Your task to perform on an android device: Open Chrome and go to the settings page Image 0: 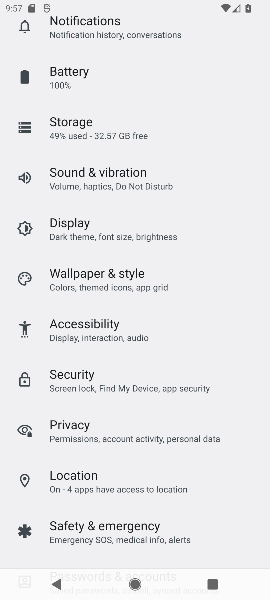
Step 0: press home button
Your task to perform on an android device: Open Chrome and go to the settings page Image 1: 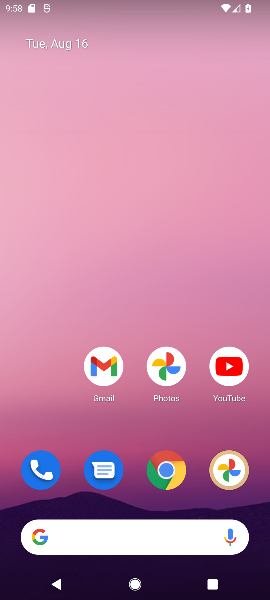
Step 1: click (168, 472)
Your task to perform on an android device: Open Chrome and go to the settings page Image 2: 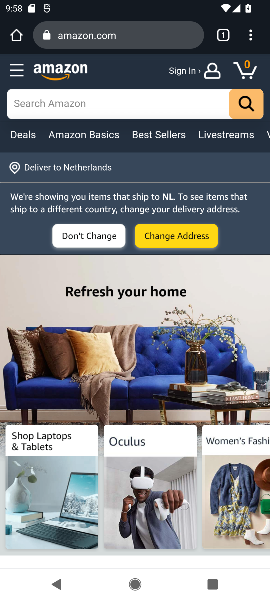
Step 2: press back button
Your task to perform on an android device: Open Chrome and go to the settings page Image 3: 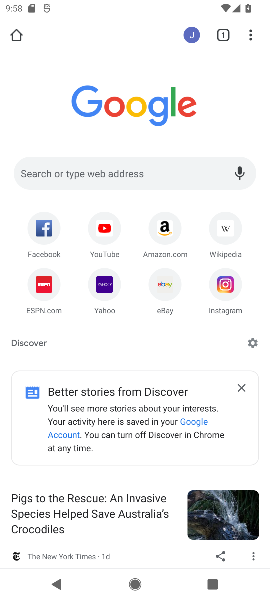
Step 3: click (250, 37)
Your task to perform on an android device: Open Chrome and go to the settings page Image 4: 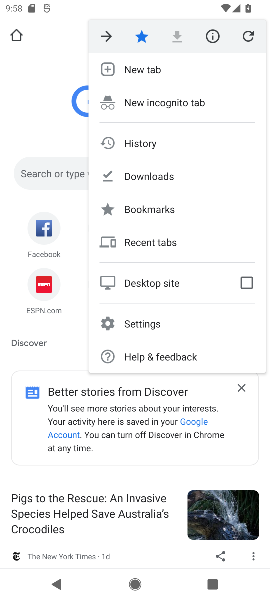
Step 4: click (152, 326)
Your task to perform on an android device: Open Chrome and go to the settings page Image 5: 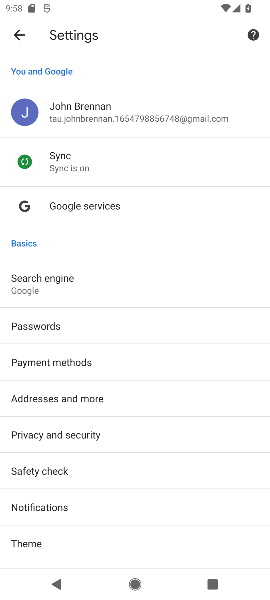
Step 5: task complete